Your task to perform on an android device: Go to accessibility settings Image 0: 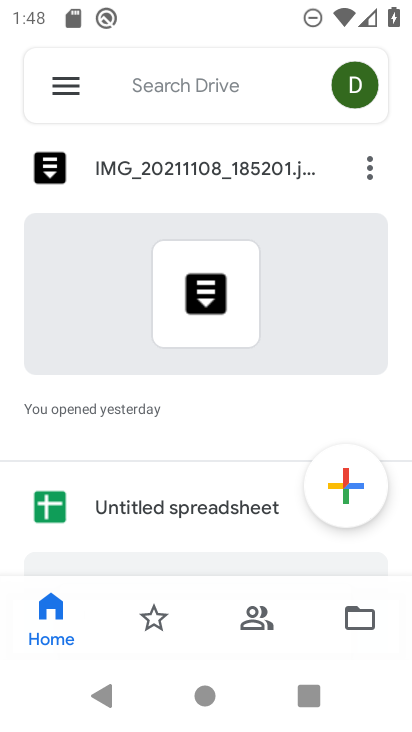
Step 0: press home button
Your task to perform on an android device: Go to accessibility settings Image 1: 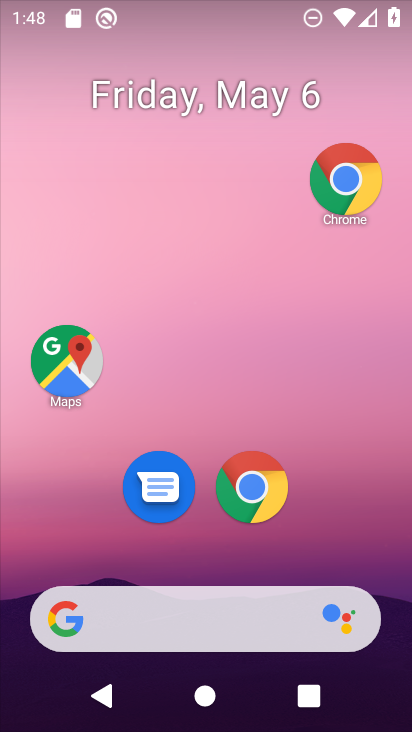
Step 1: drag from (297, 548) to (250, 83)
Your task to perform on an android device: Go to accessibility settings Image 2: 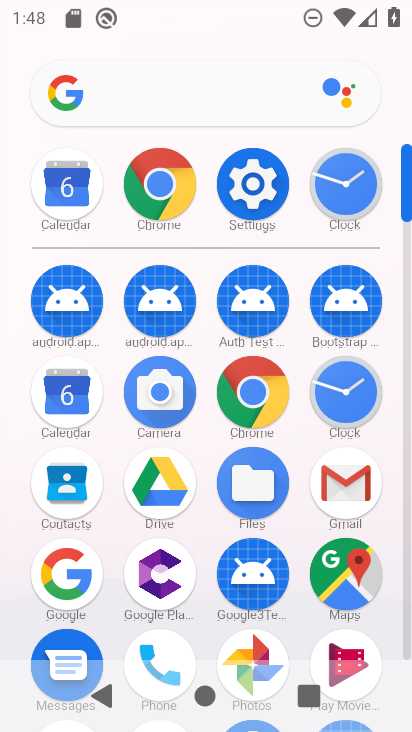
Step 2: click (248, 176)
Your task to perform on an android device: Go to accessibility settings Image 3: 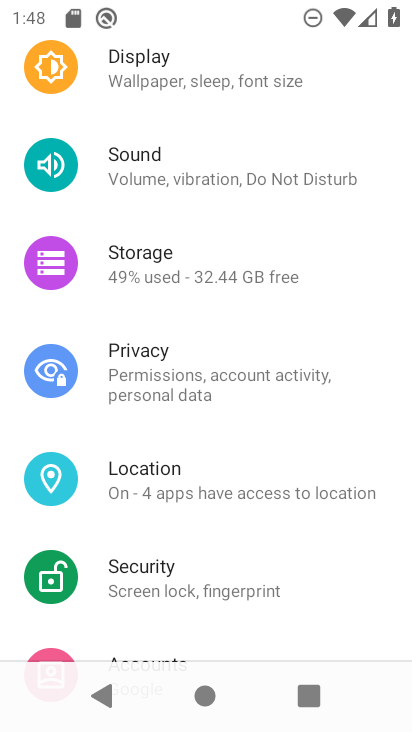
Step 3: drag from (262, 609) to (266, 83)
Your task to perform on an android device: Go to accessibility settings Image 4: 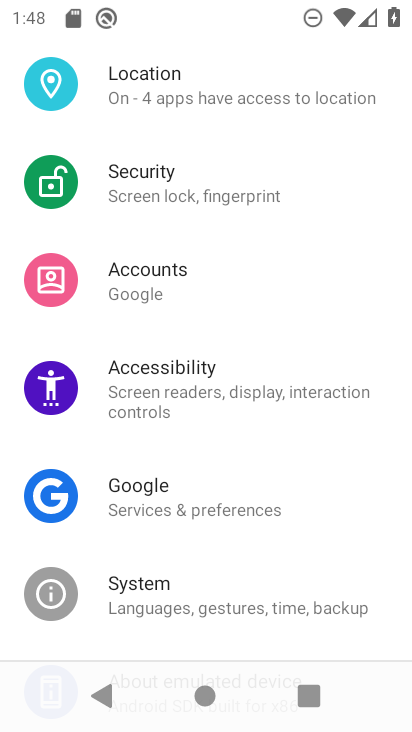
Step 4: click (237, 354)
Your task to perform on an android device: Go to accessibility settings Image 5: 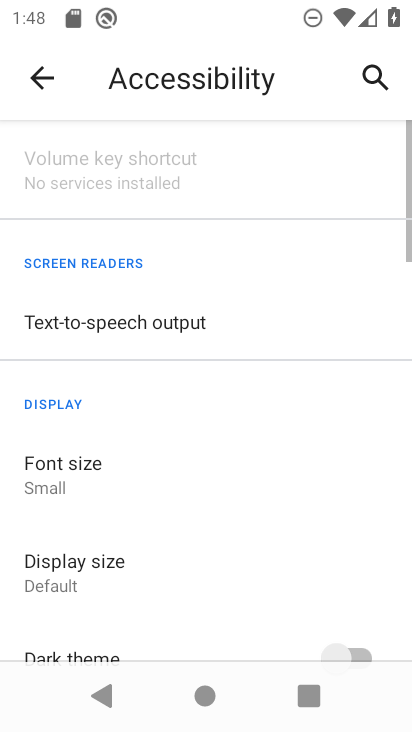
Step 5: task complete